Your task to perform on an android device: Open the stopwatch Image 0: 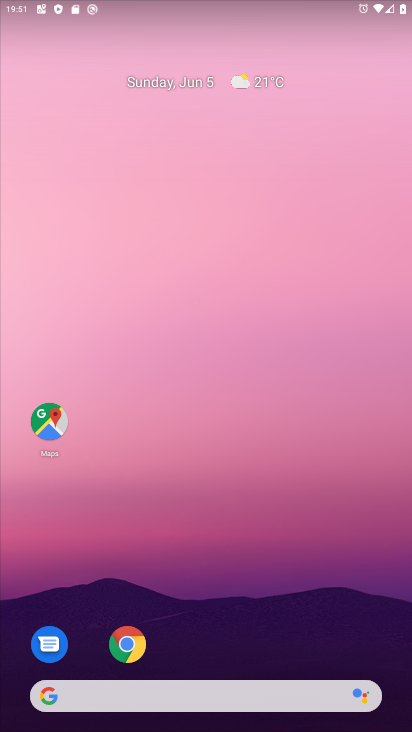
Step 0: drag from (41, 605) to (298, 114)
Your task to perform on an android device: Open the stopwatch Image 1: 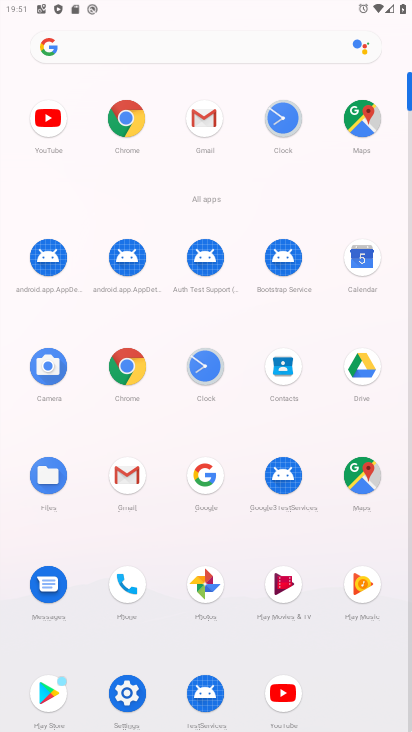
Step 1: click (201, 375)
Your task to perform on an android device: Open the stopwatch Image 2: 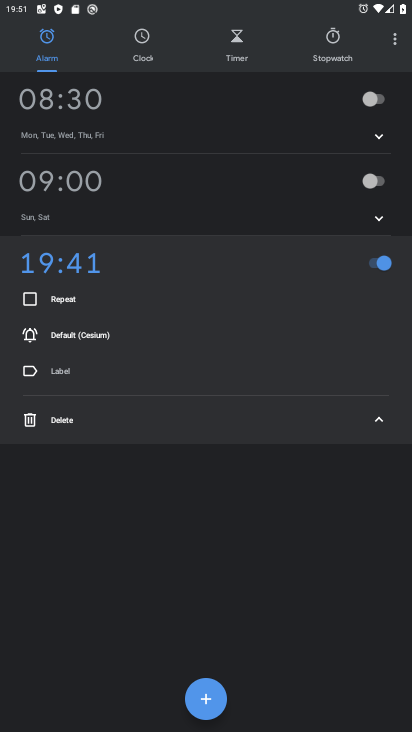
Step 2: click (332, 43)
Your task to perform on an android device: Open the stopwatch Image 3: 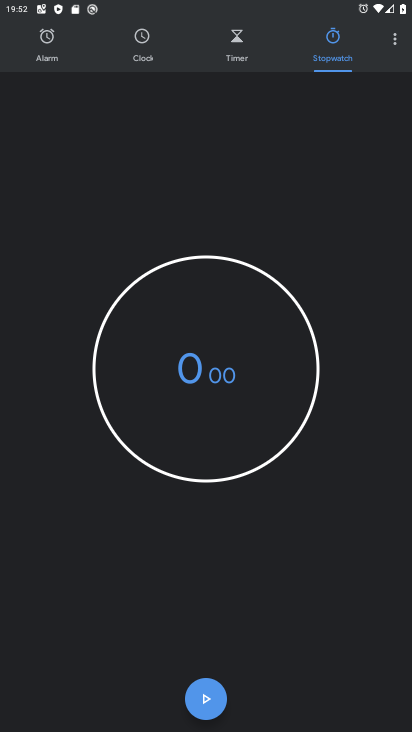
Step 3: task complete